Your task to perform on an android device: toggle notification dots Image 0: 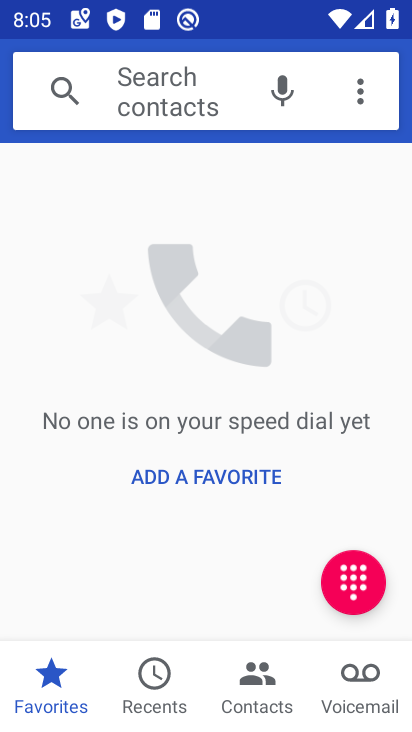
Step 0: press home button
Your task to perform on an android device: toggle notification dots Image 1: 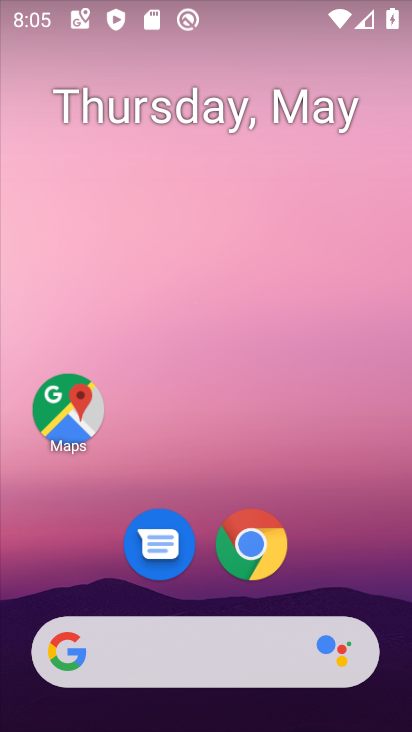
Step 1: drag from (356, 555) to (277, 99)
Your task to perform on an android device: toggle notification dots Image 2: 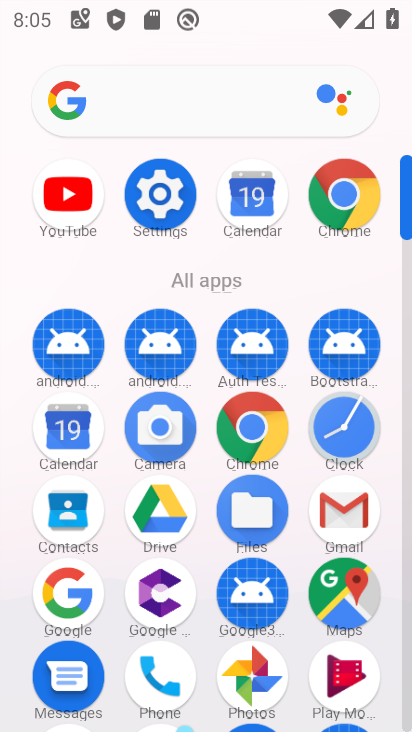
Step 2: click (160, 188)
Your task to perform on an android device: toggle notification dots Image 3: 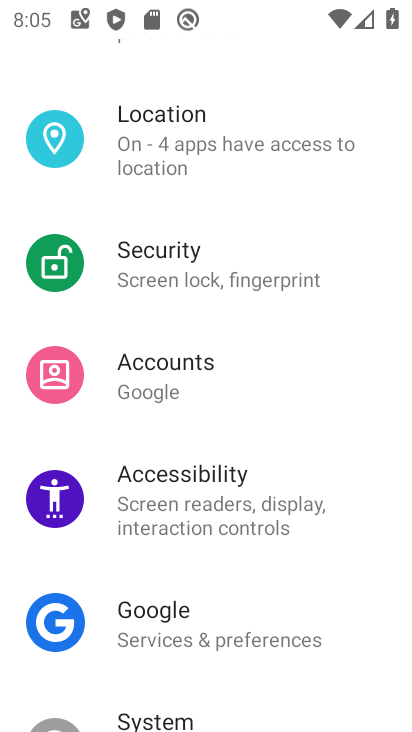
Step 3: drag from (207, 136) to (300, 695)
Your task to perform on an android device: toggle notification dots Image 4: 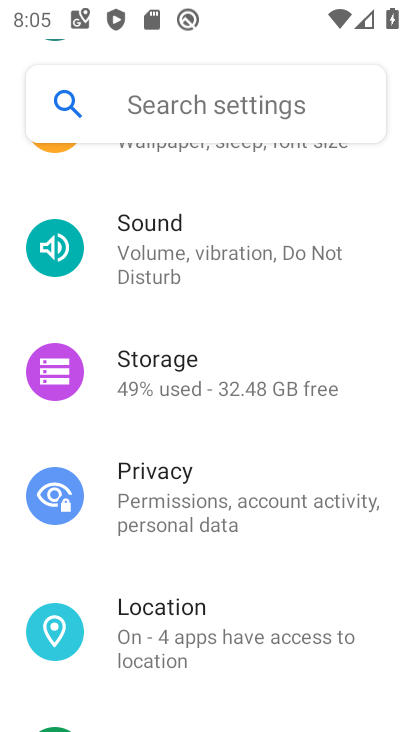
Step 4: drag from (298, 290) to (305, 725)
Your task to perform on an android device: toggle notification dots Image 5: 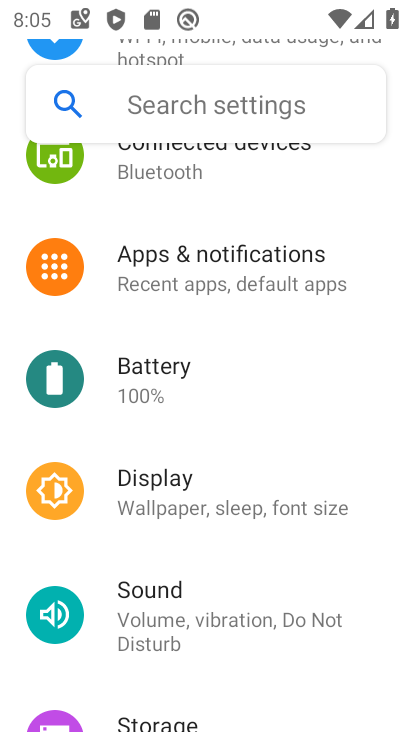
Step 5: click (213, 290)
Your task to perform on an android device: toggle notification dots Image 6: 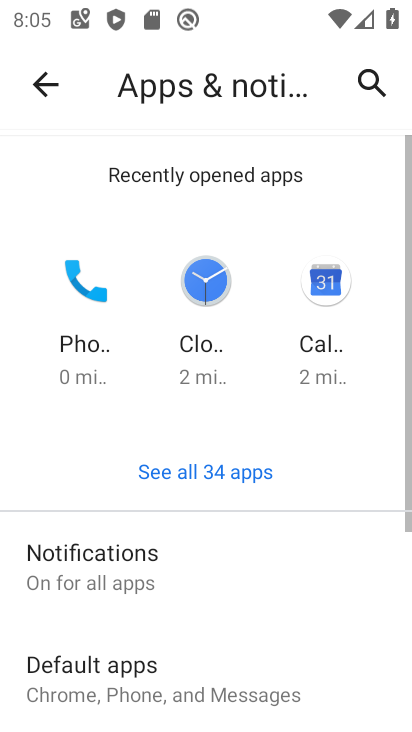
Step 6: click (168, 580)
Your task to perform on an android device: toggle notification dots Image 7: 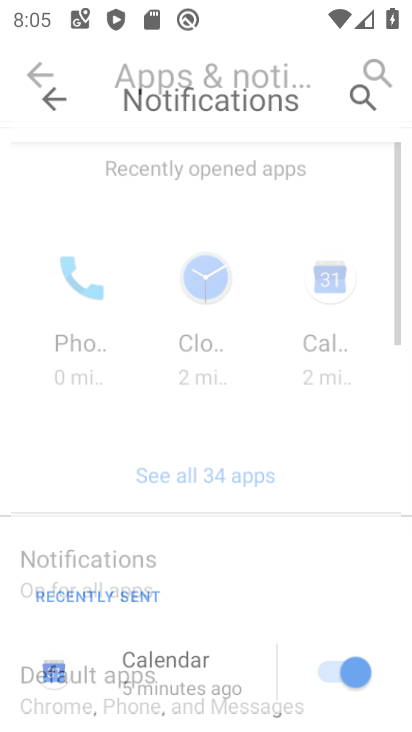
Step 7: drag from (237, 651) to (235, 72)
Your task to perform on an android device: toggle notification dots Image 8: 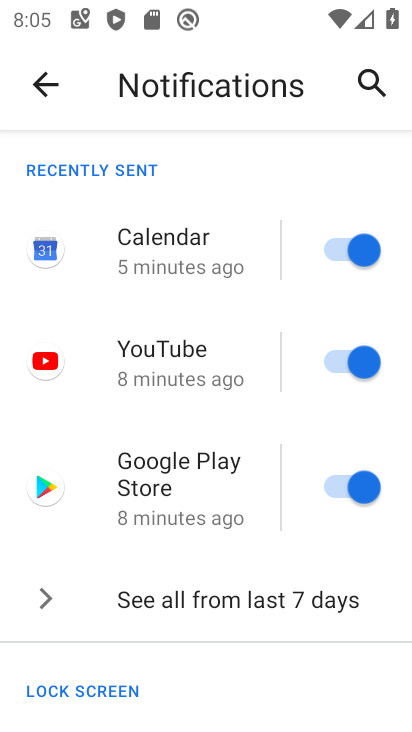
Step 8: drag from (250, 662) to (232, 0)
Your task to perform on an android device: toggle notification dots Image 9: 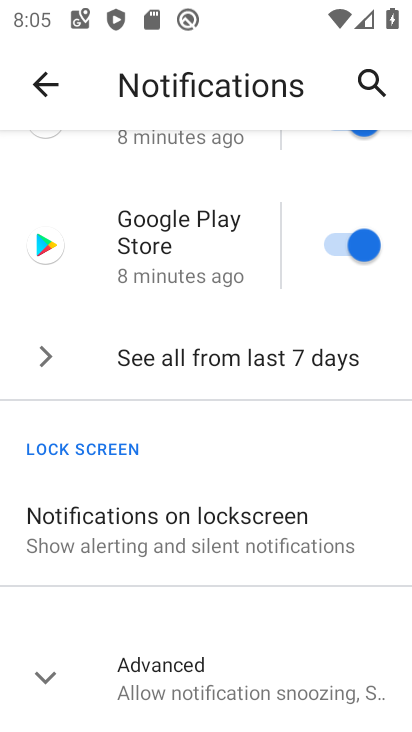
Step 9: click (227, 643)
Your task to perform on an android device: toggle notification dots Image 10: 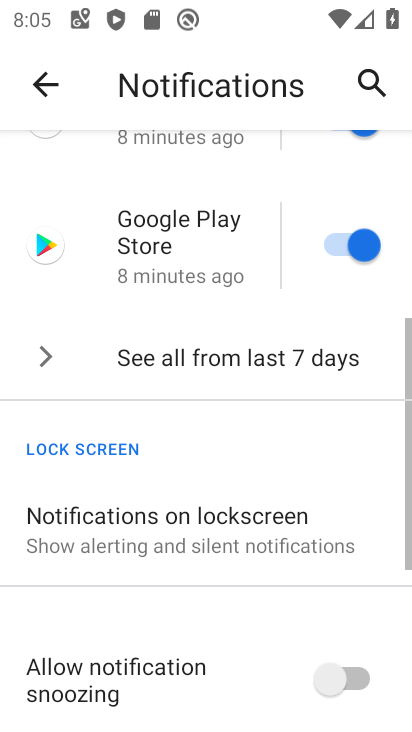
Step 10: drag from (225, 653) to (190, 470)
Your task to perform on an android device: toggle notification dots Image 11: 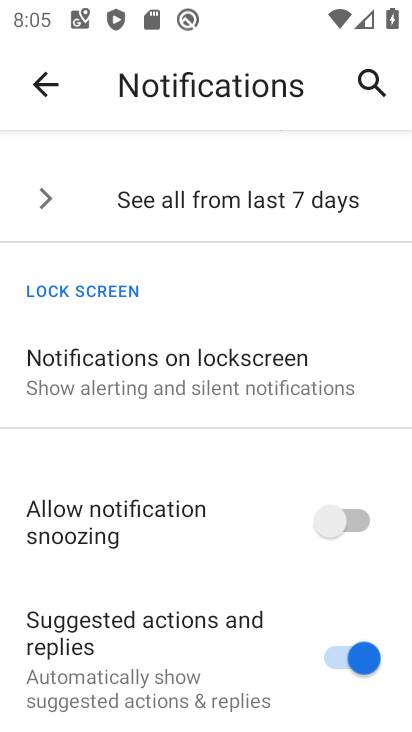
Step 11: drag from (232, 671) to (230, 138)
Your task to perform on an android device: toggle notification dots Image 12: 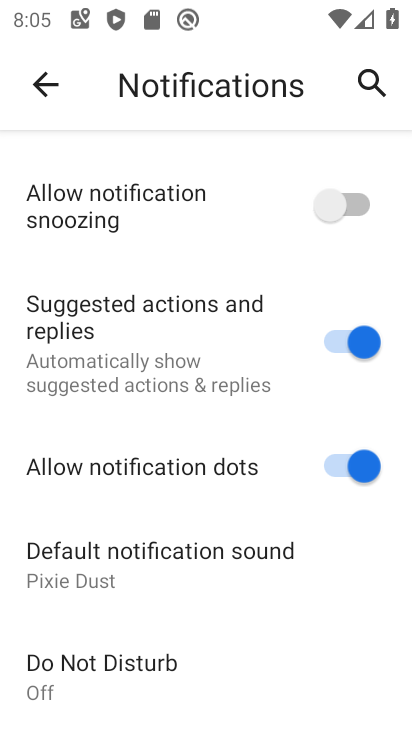
Step 12: click (268, 464)
Your task to perform on an android device: toggle notification dots Image 13: 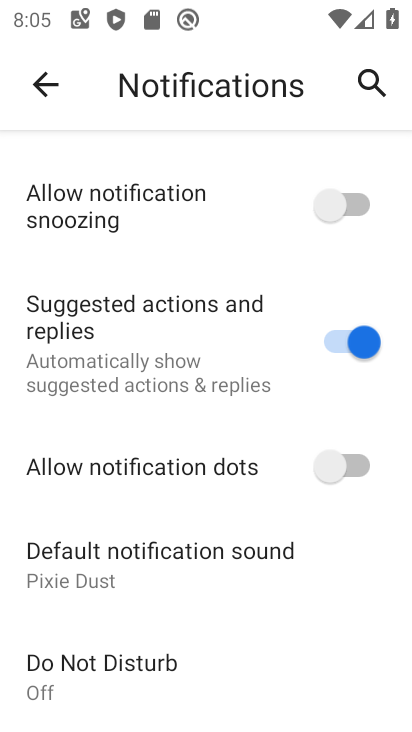
Step 13: task complete